Your task to perform on an android device: install app "Adobe Acrobat Reader: Edit PDF" Image 0: 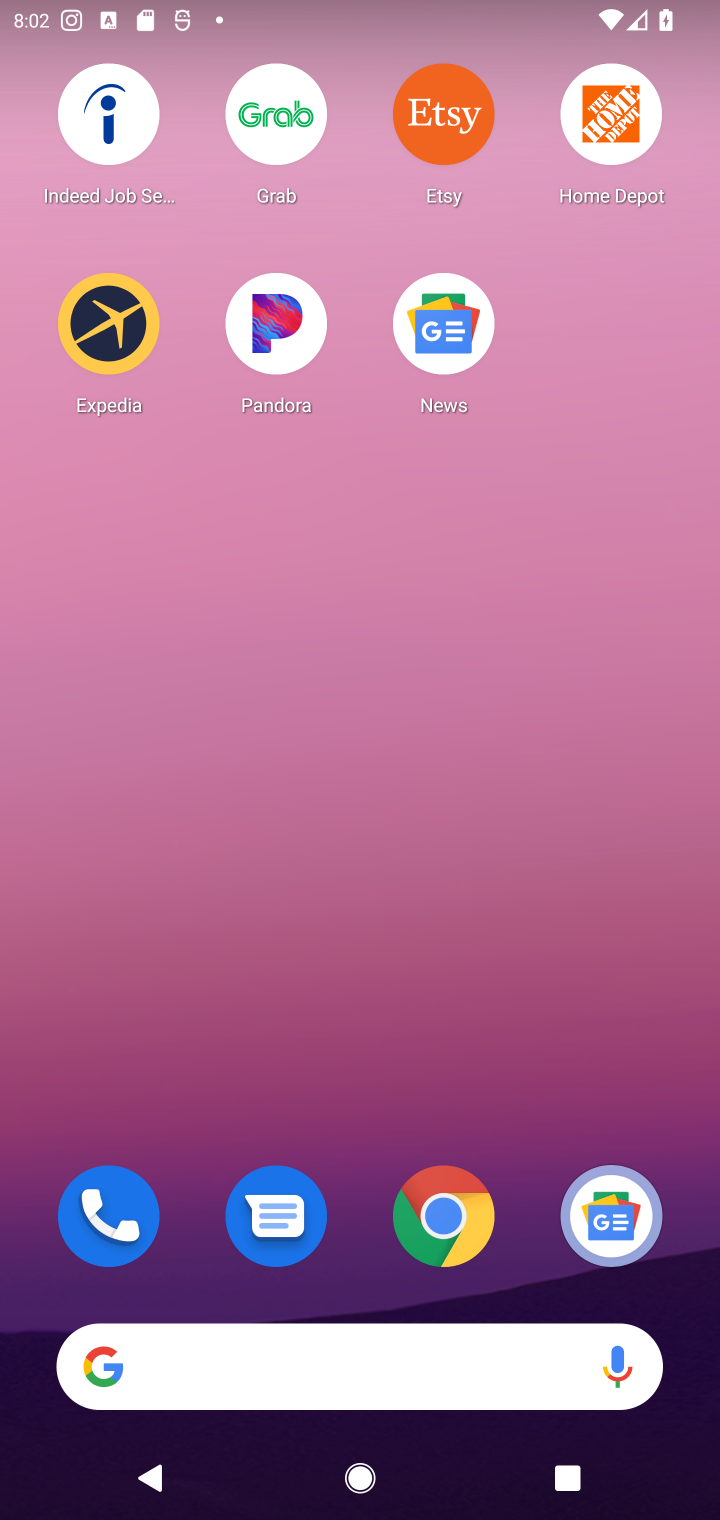
Step 0: drag from (387, 858) to (426, 138)
Your task to perform on an android device: install app "Adobe Acrobat Reader: Edit PDF" Image 1: 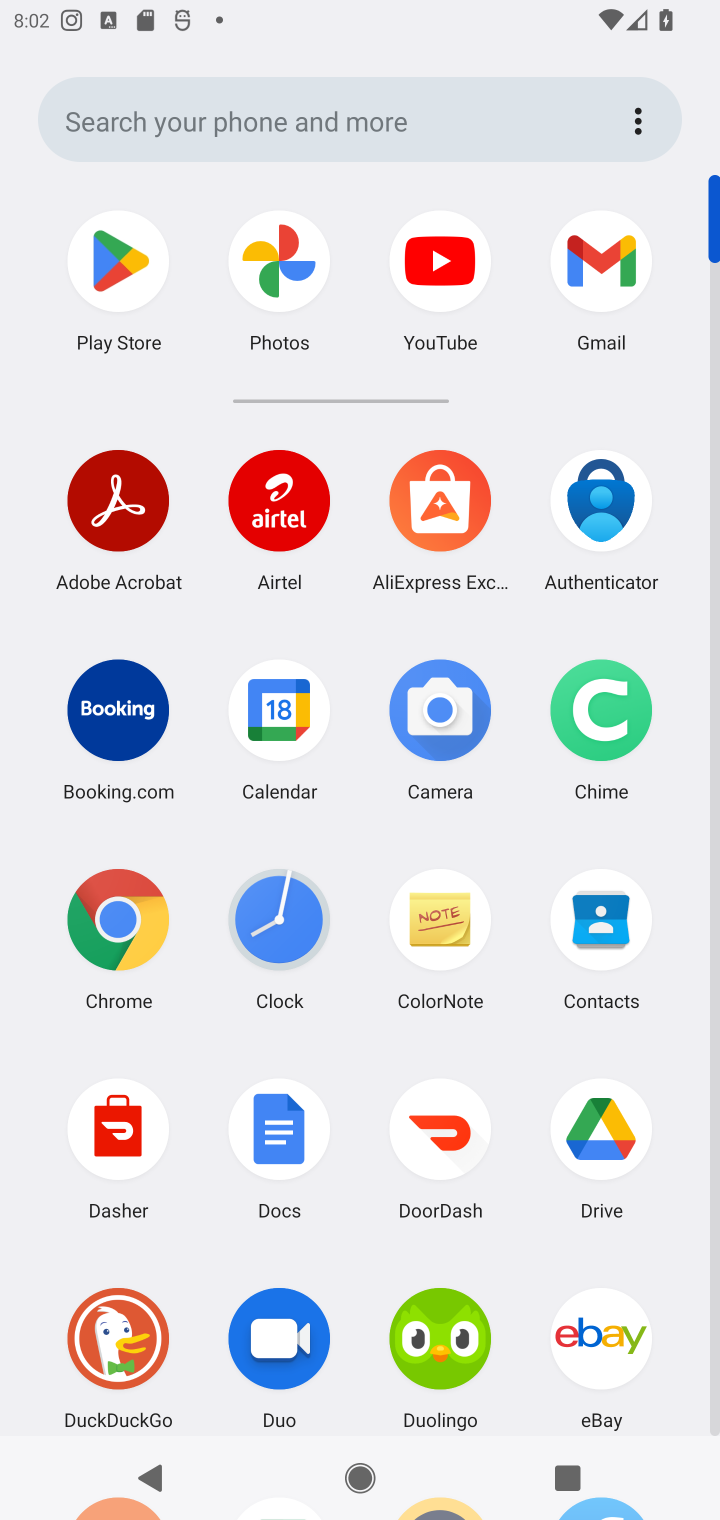
Step 1: click (127, 279)
Your task to perform on an android device: install app "Adobe Acrobat Reader: Edit PDF" Image 2: 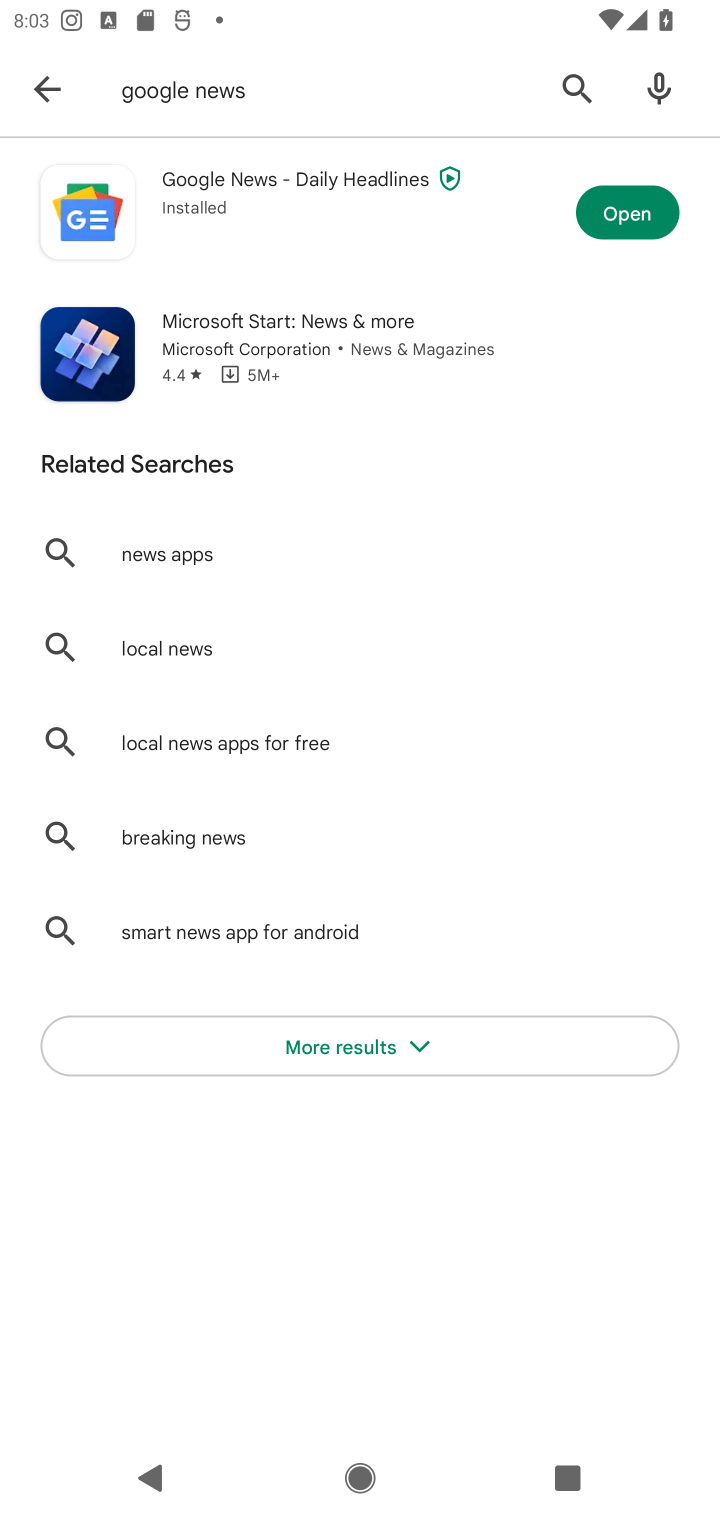
Step 2: click (577, 104)
Your task to perform on an android device: install app "Adobe Acrobat Reader: Edit PDF" Image 3: 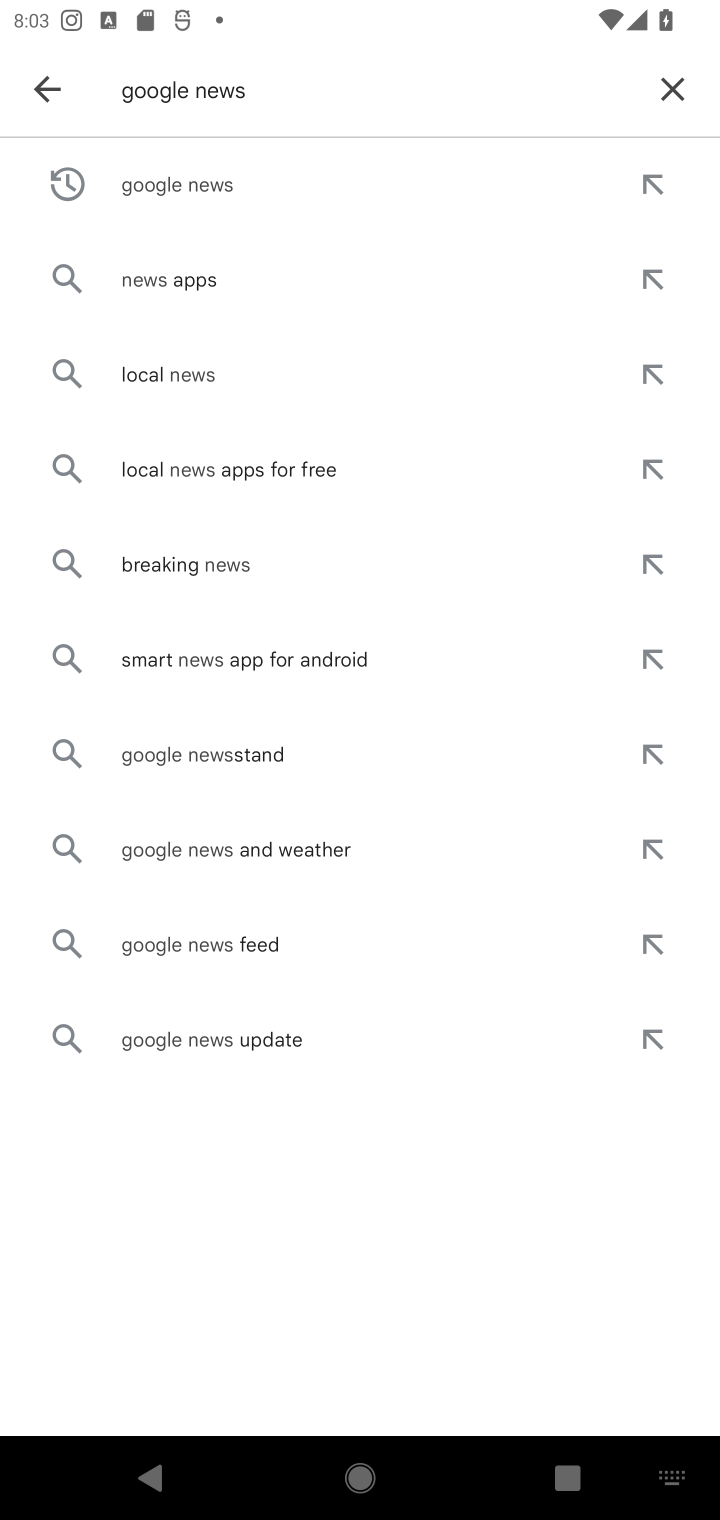
Step 3: click (675, 73)
Your task to perform on an android device: install app "Adobe Acrobat Reader: Edit PDF" Image 4: 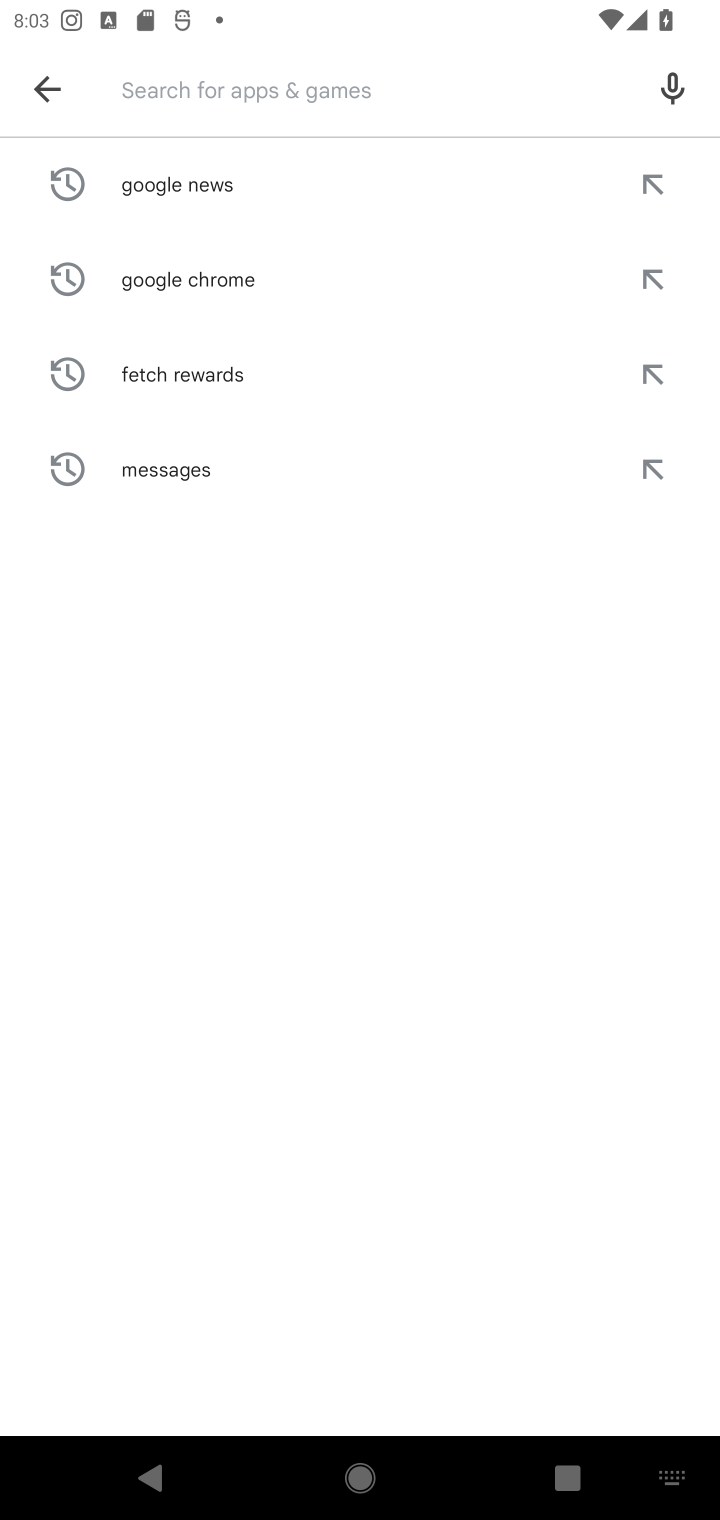
Step 4: type "Adobe Acrobat Reader: Edit PDF"
Your task to perform on an android device: install app "Adobe Acrobat Reader: Edit PDF" Image 5: 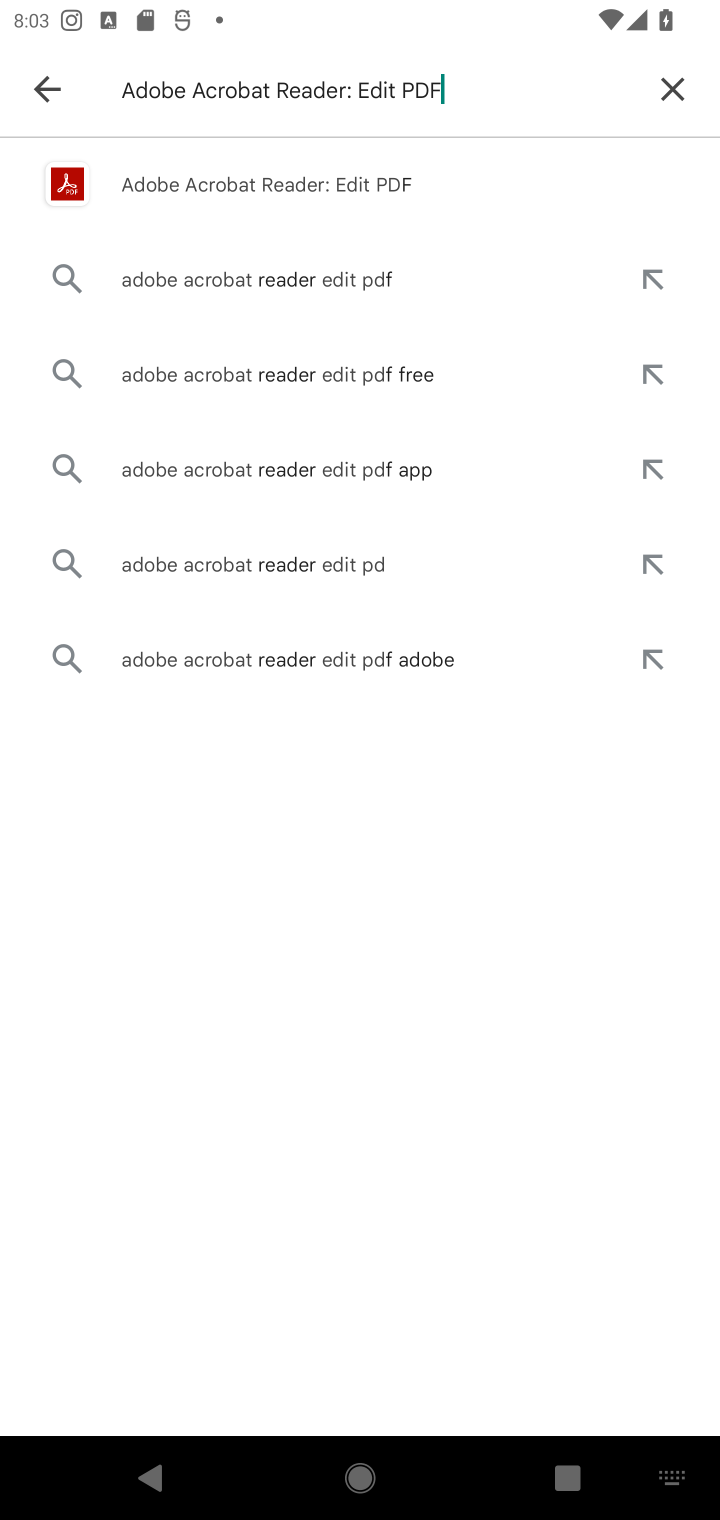
Step 5: type ""
Your task to perform on an android device: install app "Adobe Acrobat Reader: Edit PDF" Image 6: 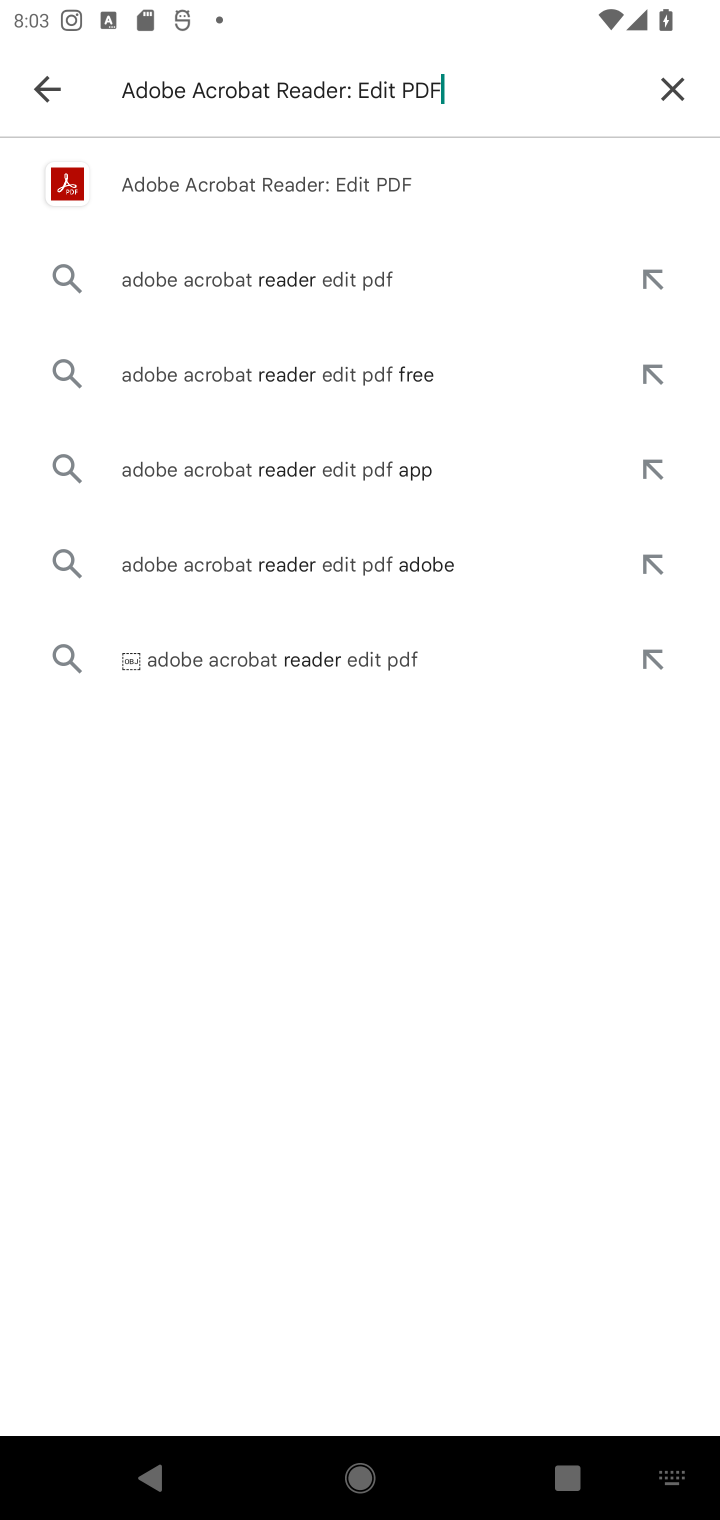
Step 6: click (379, 176)
Your task to perform on an android device: install app "Adobe Acrobat Reader: Edit PDF" Image 7: 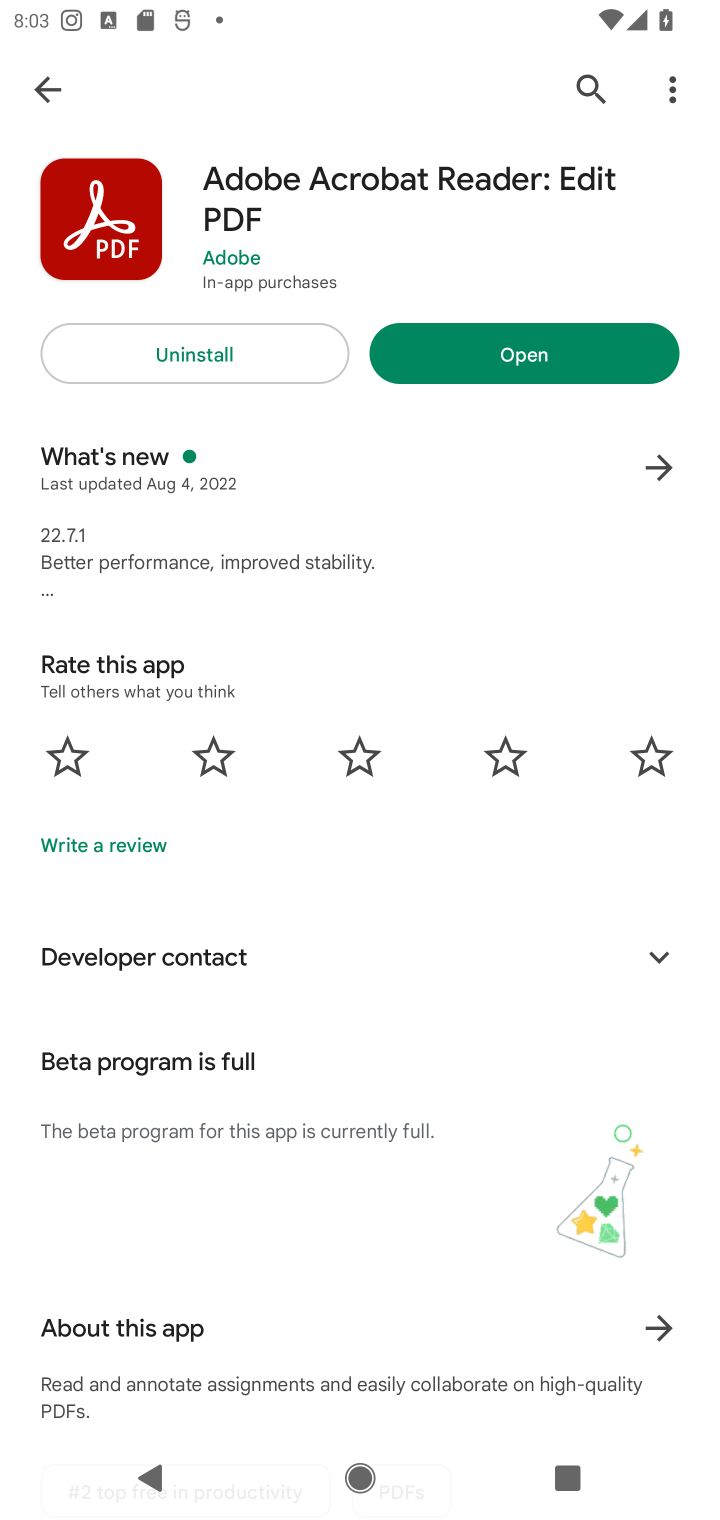
Step 7: task complete